Your task to perform on an android device: manage bookmarks in the chrome app Image 0: 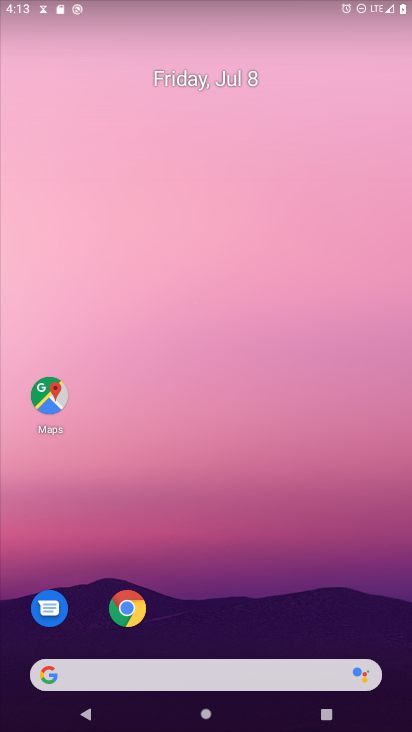
Step 0: drag from (314, 651) to (341, 11)
Your task to perform on an android device: manage bookmarks in the chrome app Image 1: 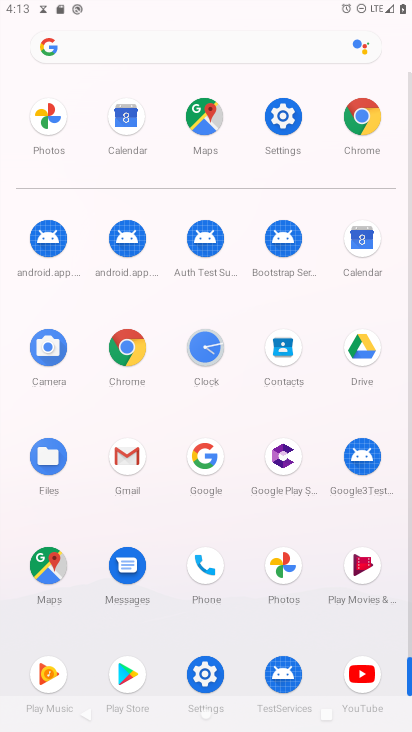
Step 1: click (122, 332)
Your task to perform on an android device: manage bookmarks in the chrome app Image 2: 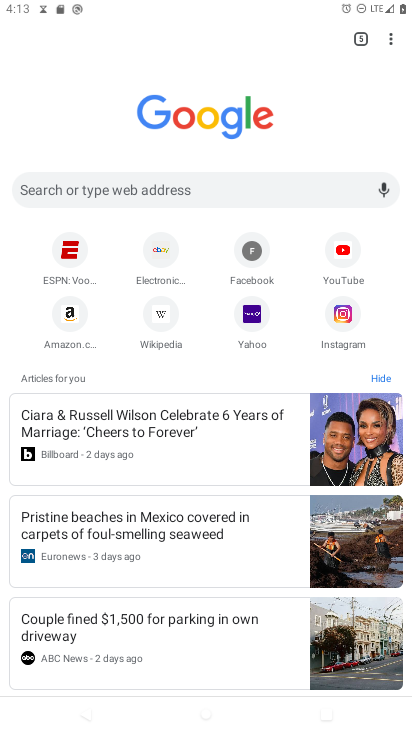
Step 2: task complete